Your task to perform on an android device: Go to Maps Image 0: 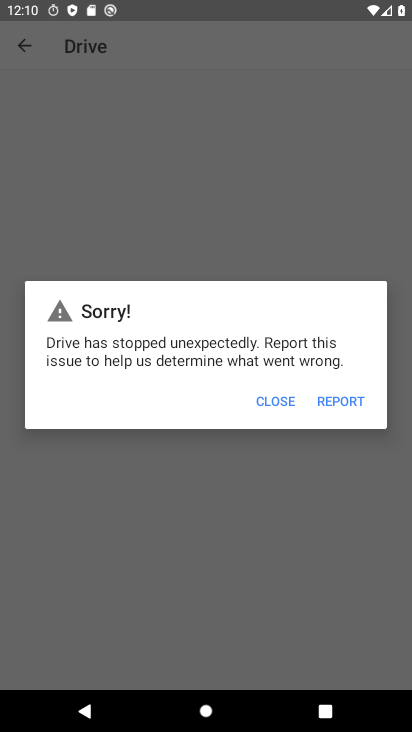
Step 0: press home button
Your task to perform on an android device: Go to Maps Image 1: 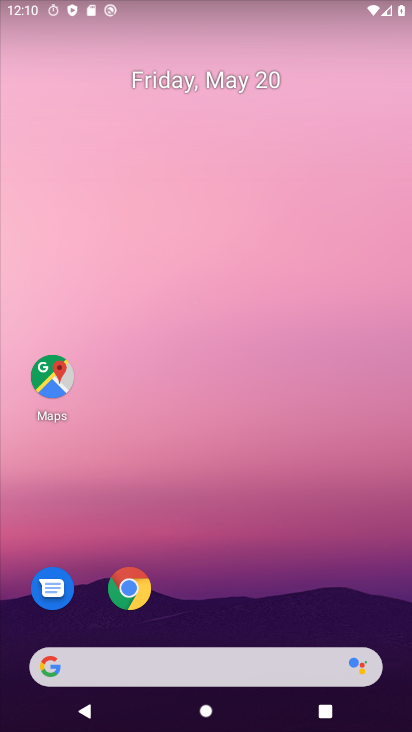
Step 1: click (51, 381)
Your task to perform on an android device: Go to Maps Image 2: 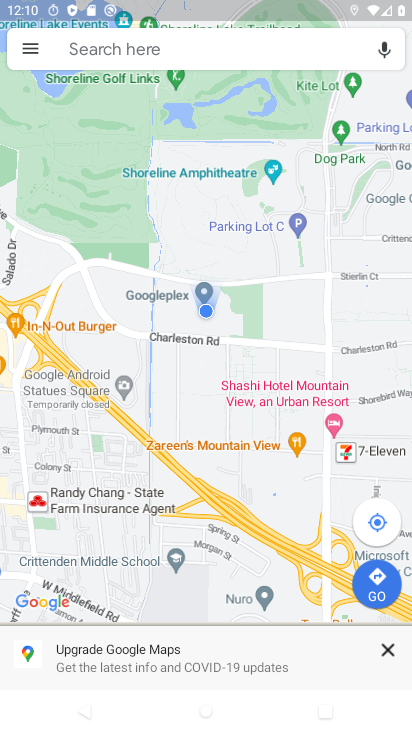
Step 2: task complete